Your task to perform on an android device: Go to privacy settings Image 0: 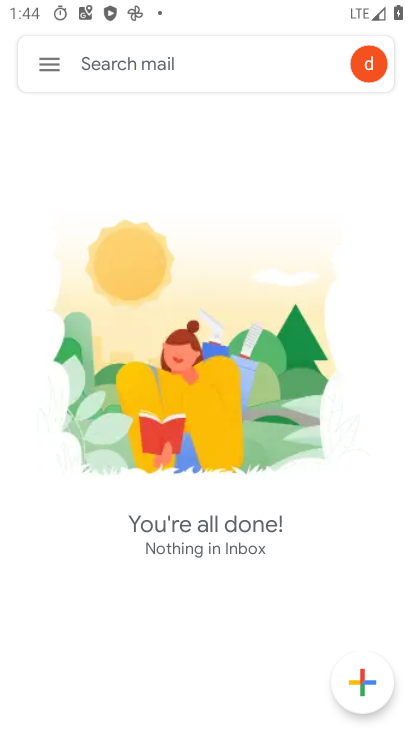
Step 0: press home button
Your task to perform on an android device: Go to privacy settings Image 1: 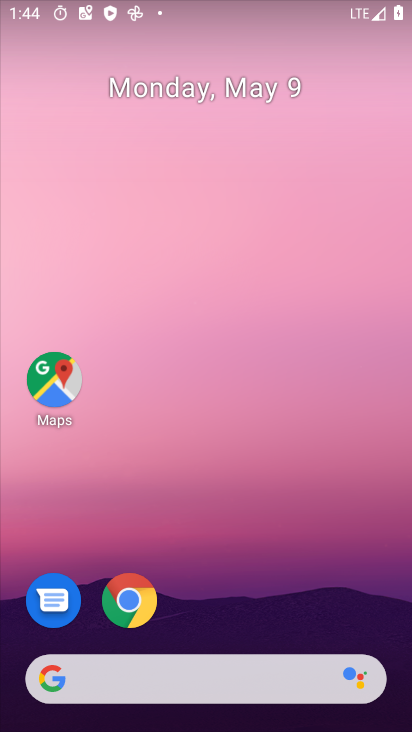
Step 1: drag from (285, 635) to (291, 157)
Your task to perform on an android device: Go to privacy settings Image 2: 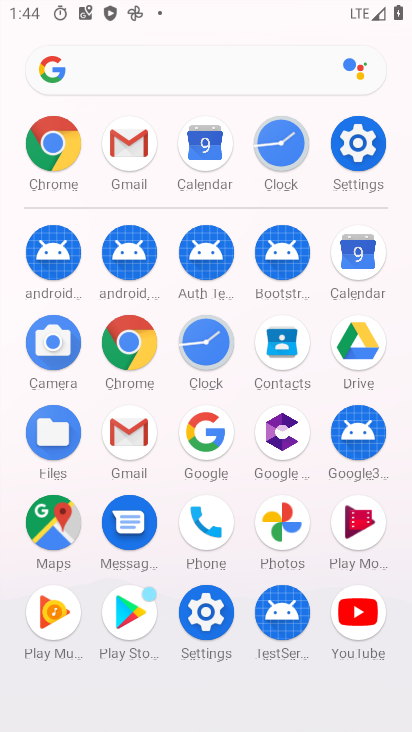
Step 2: click (197, 617)
Your task to perform on an android device: Go to privacy settings Image 3: 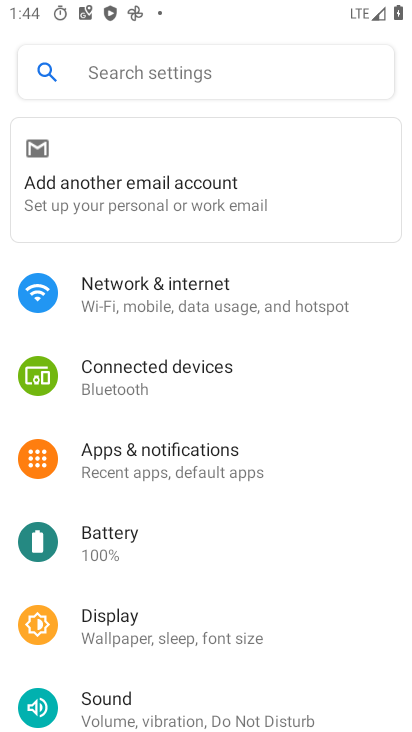
Step 3: drag from (161, 672) to (207, 377)
Your task to perform on an android device: Go to privacy settings Image 4: 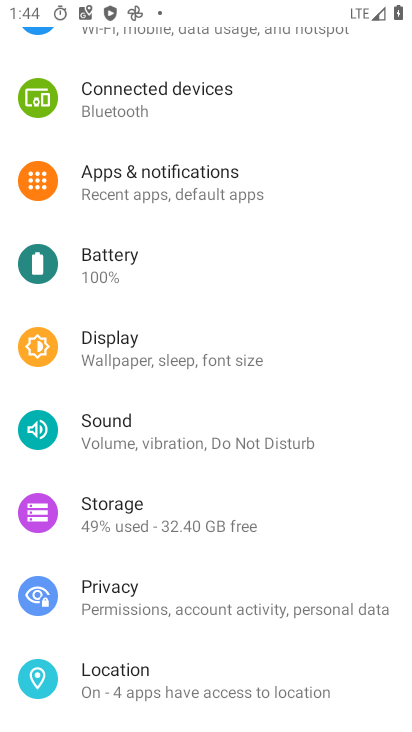
Step 4: click (184, 615)
Your task to perform on an android device: Go to privacy settings Image 5: 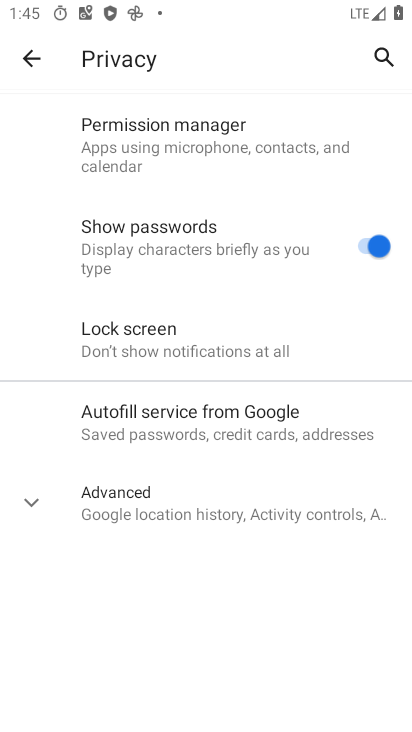
Step 5: task complete